Your task to perform on an android device: Turn off the flashlight Image 0: 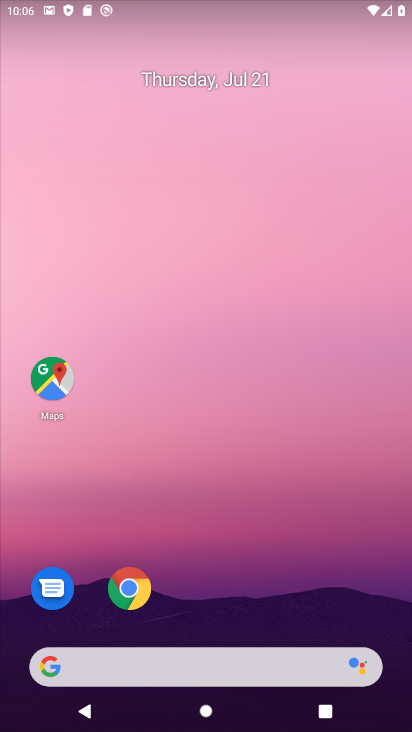
Step 0: drag from (184, 525) to (280, 39)
Your task to perform on an android device: Turn off the flashlight Image 1: 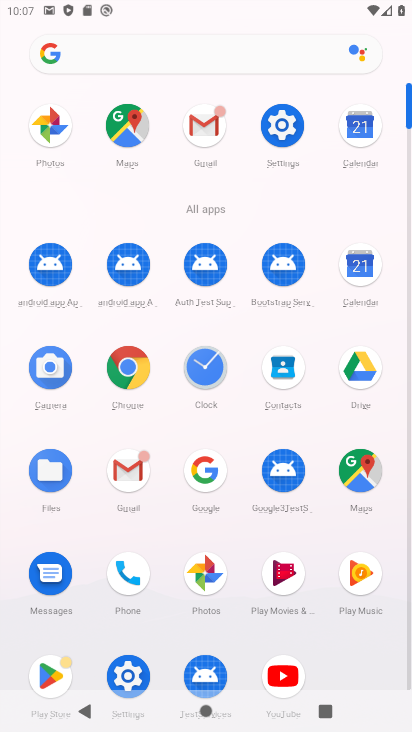
Step 1: click (273, 121)
Your task to perform on an android device: Turn off the flashlight Image 2: 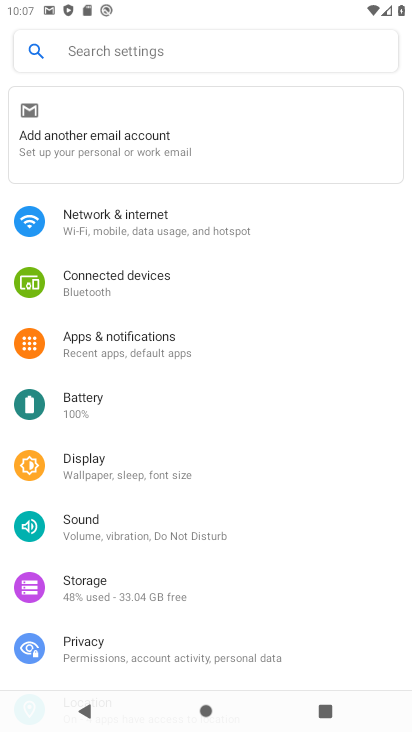
Step 2: click (173, 42)
Your task to perform on an android device: Turn off the flashlight Image 3: 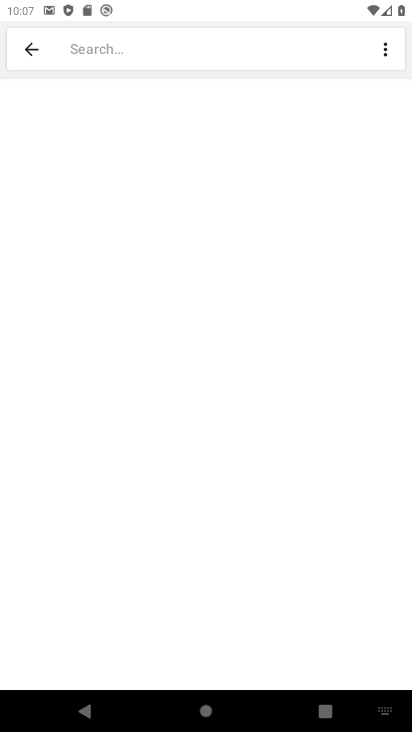
Step 3: type "flashlight"
Your task to perform on an android device: Turn off the flashlight Image 4: 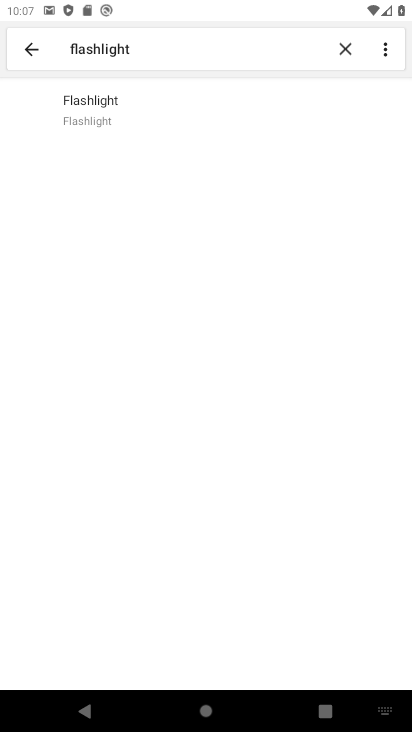
Step 4: click (140, 114)
Your task to perform on an android device: Turn off the flashlight Image 5: 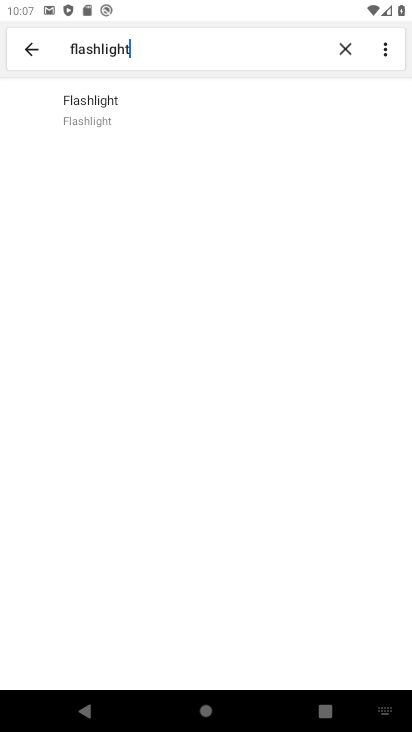
Step 5: click (173, 119)
Your task to perform on an android device: Turn off the flashlight Image 6: 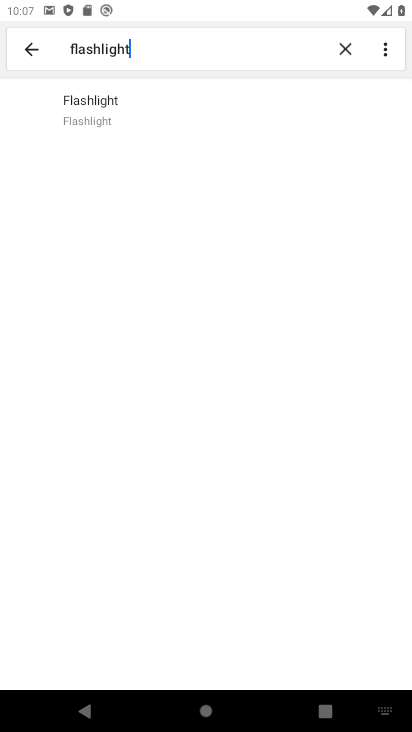
Step 6: click (129, 122)
Your task to perform on an android device: Turn off the flashlight Image 7: 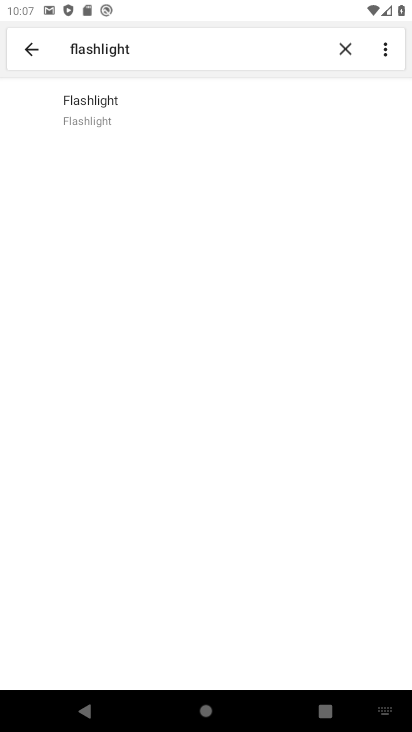
Step 7: drag from (229, 292) to (268, 131)
Your task to perform on an android device: Turn off the flashlight Image 8: 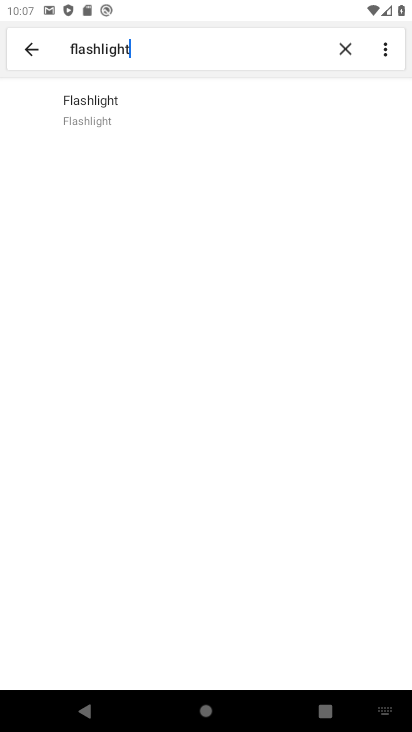
Step 8: click (140, 93)
Your task to perform on an android device: Turn off the flashlight Image 9: 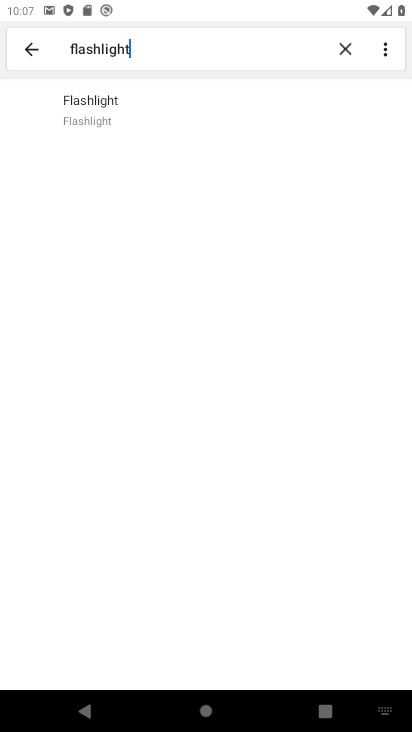
Step 9: task complete